Your task to perform on an android device: empty trash in the gmail app Image 0: 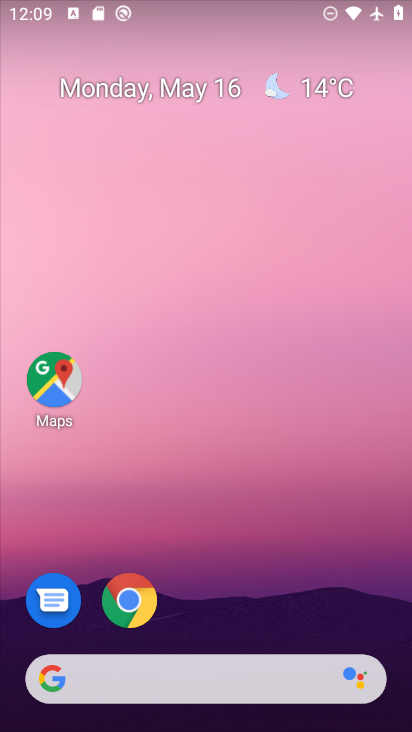
Step 0: drag from (384, 618) to (354, 82)
Your task to perform on an android device: empty trash in the gmail app Image 1: 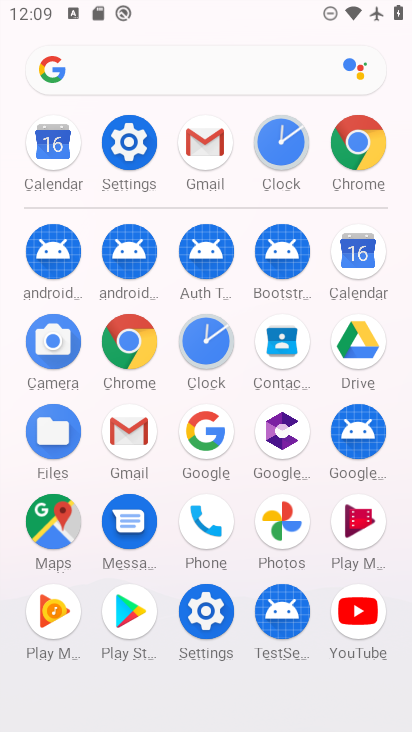
Step 1: click (127, 431)
Your task to perform on an android device: empty trash in the gmail app Image 2: 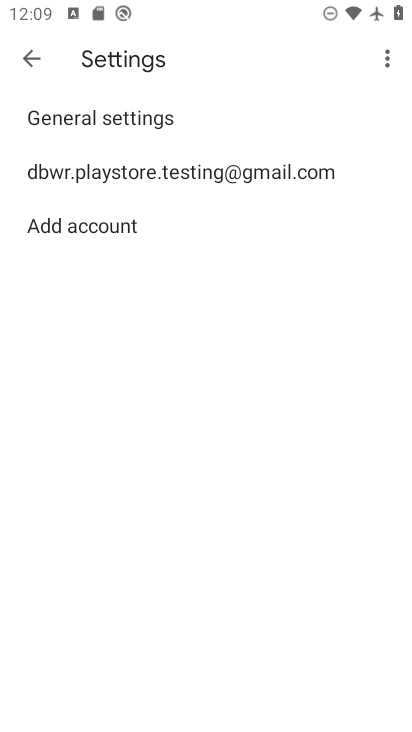
Step 2: press back button
Your task to perform on an android device: empty trash in the gmail app Image 3: 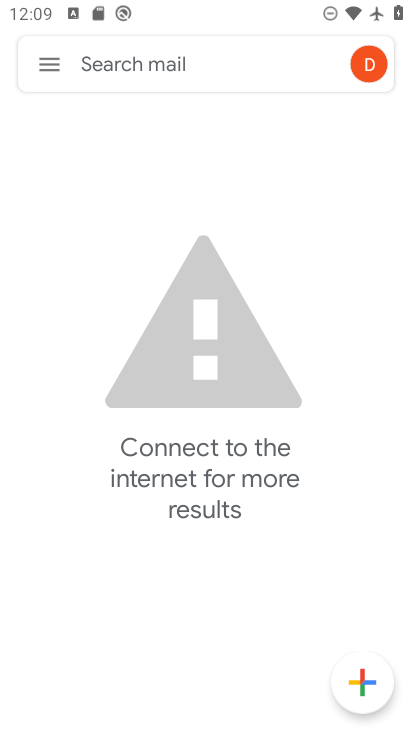
Step 3: click (46, 60)
Your task to perform on an android device: empty trash in the gmail app Image 4: 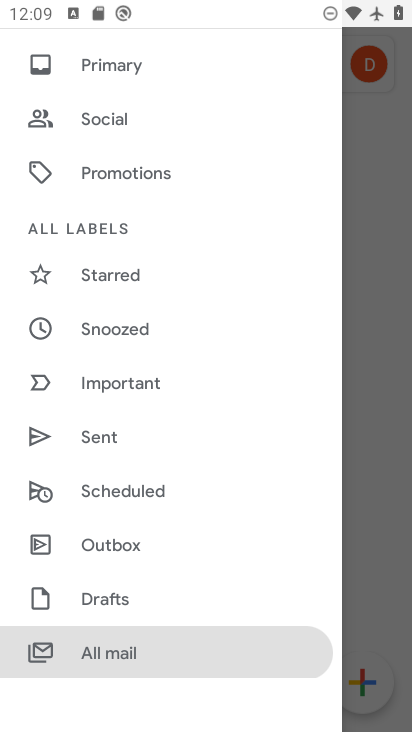
Step 4: drag from (191, 569) to (210, 238)
Your task to perform on an android device: empty trash in the gmail app Image 5: 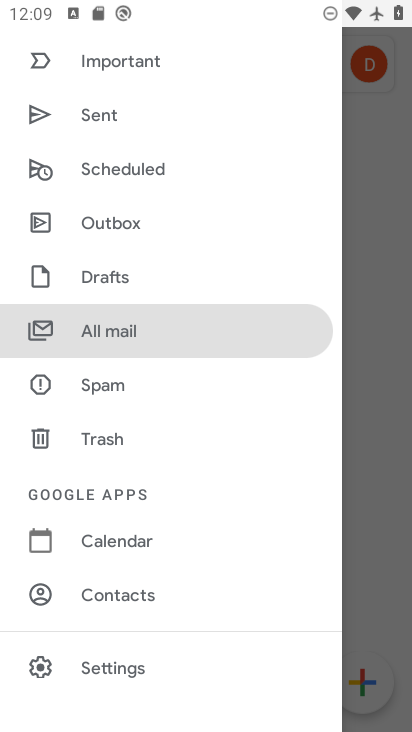
Step 5: click (98, 443)
Your task to perform on an android device: empty trash in the gmail app Image 6: 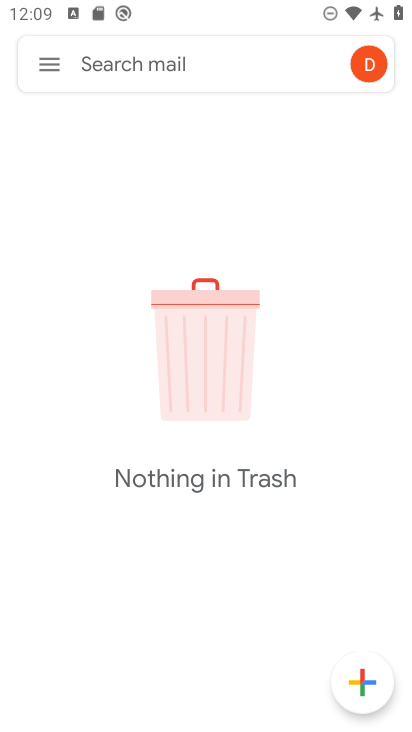
Step 6: task complete